Your task to perform on an android device: change notifications settings Image 0: 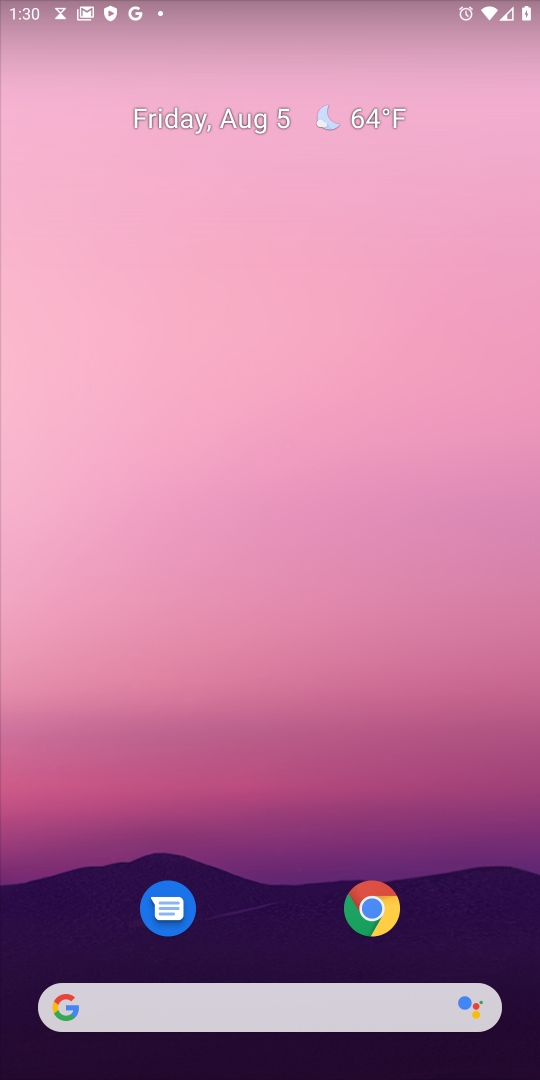
Step 0: press home button
Your task to perform on an android device: change notifications settings Image 1: 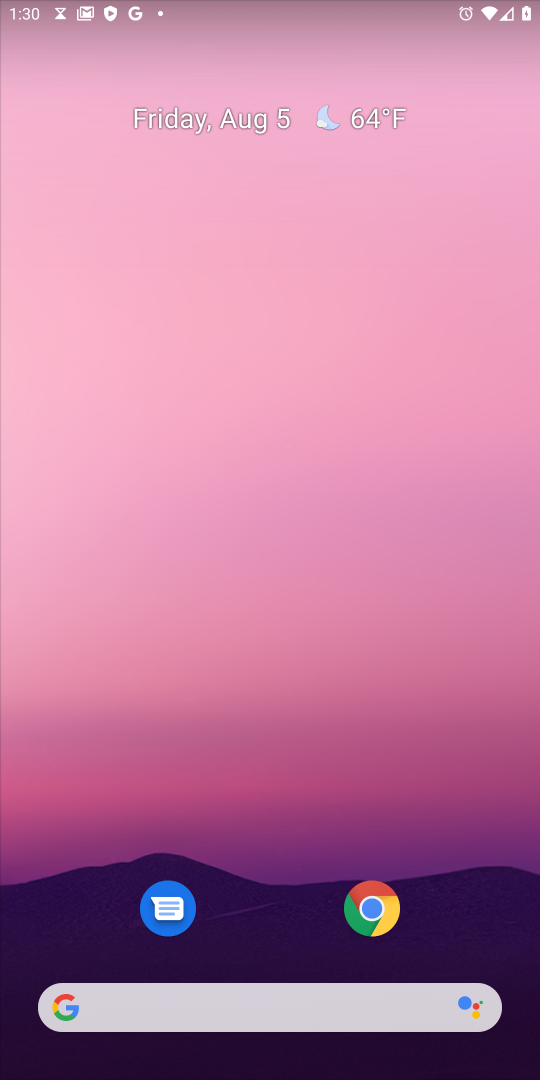
Step 1: drag from (326, 1025) to (142, 6)
Your task to perform on an android device: change notifications settings Image 2: 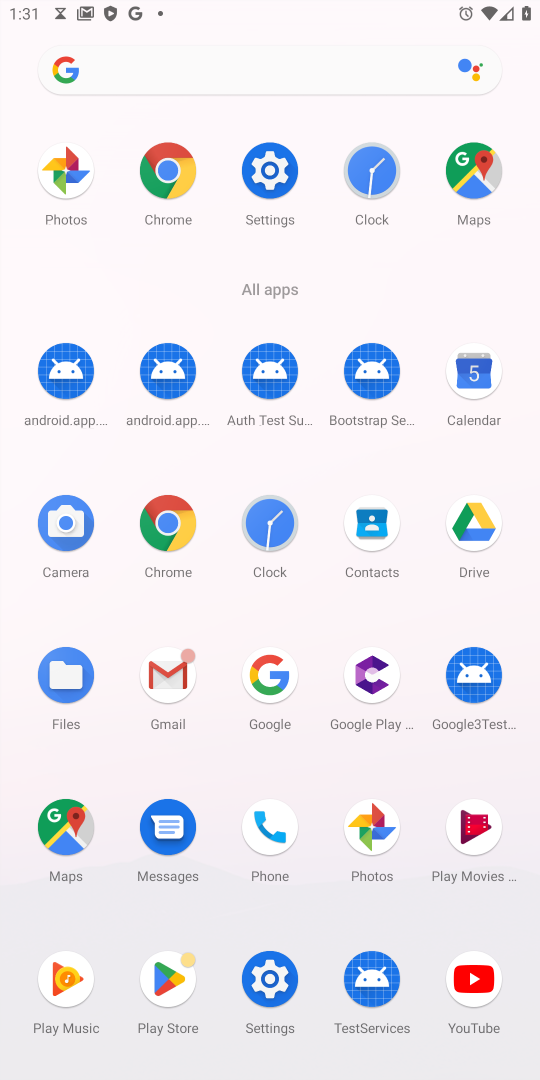
Step 2: click (263, 1006)
Your task to perform on an android device: change notifications settings Image 3: 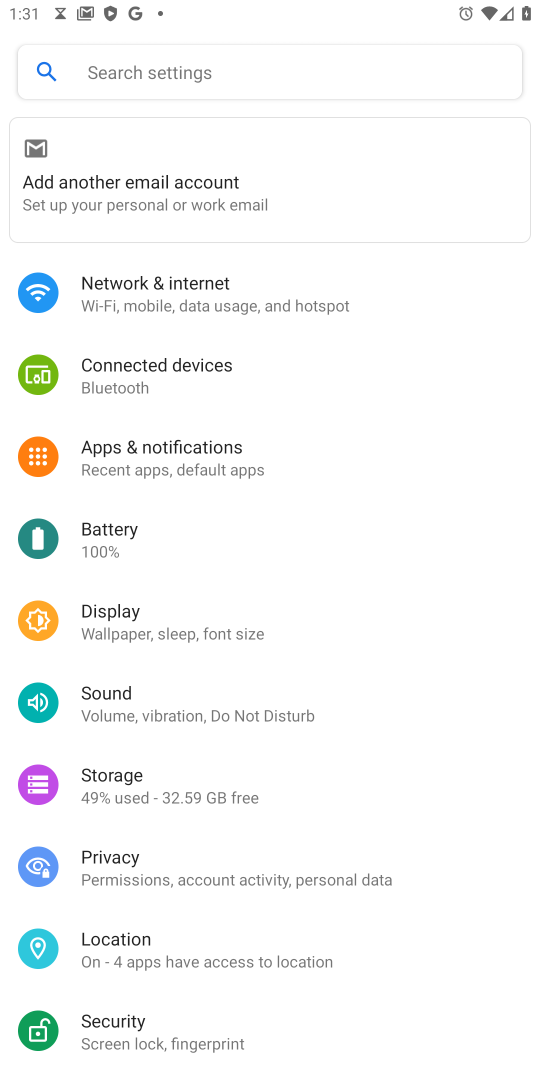
Step 3: click (195, 445)
Your task to perform on an android device: change notifications settings Image 4: 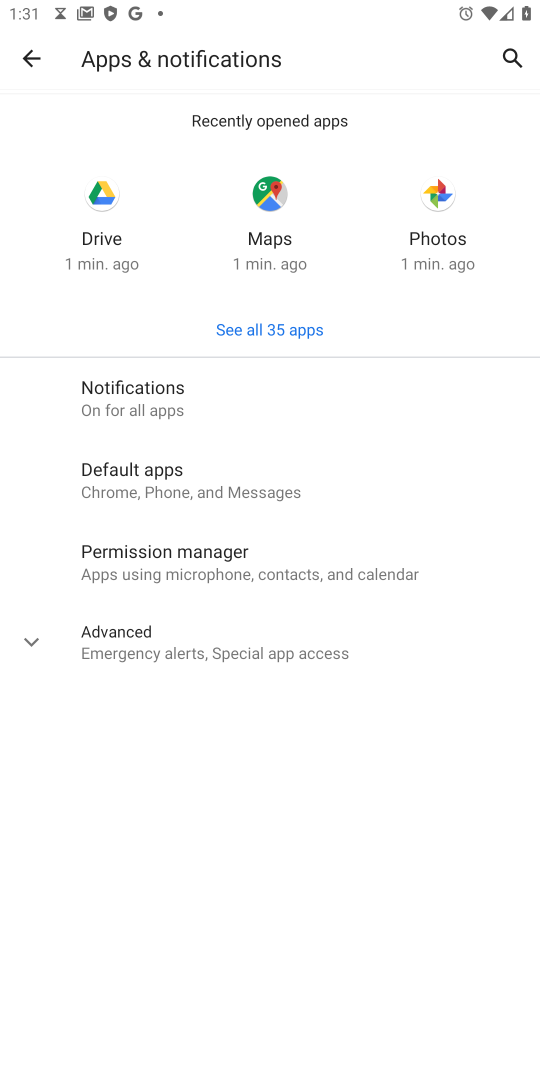
Step 4: click (115, 391)
Your task to perform on an android device: change notifications settings Image 5: 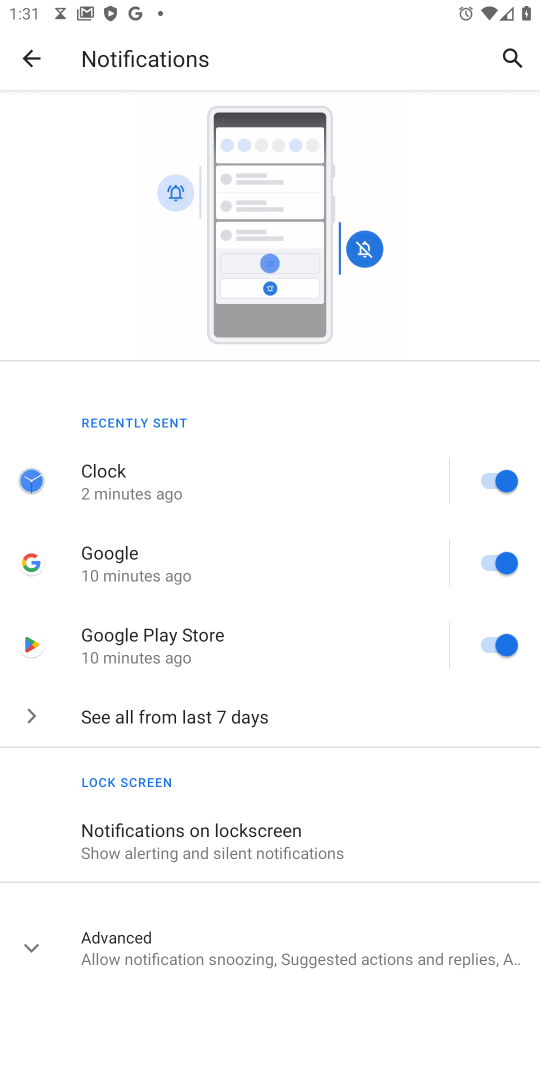
Step 5: click (275, 964)
Your task to perform on an android device: change notifications settings Image 6: 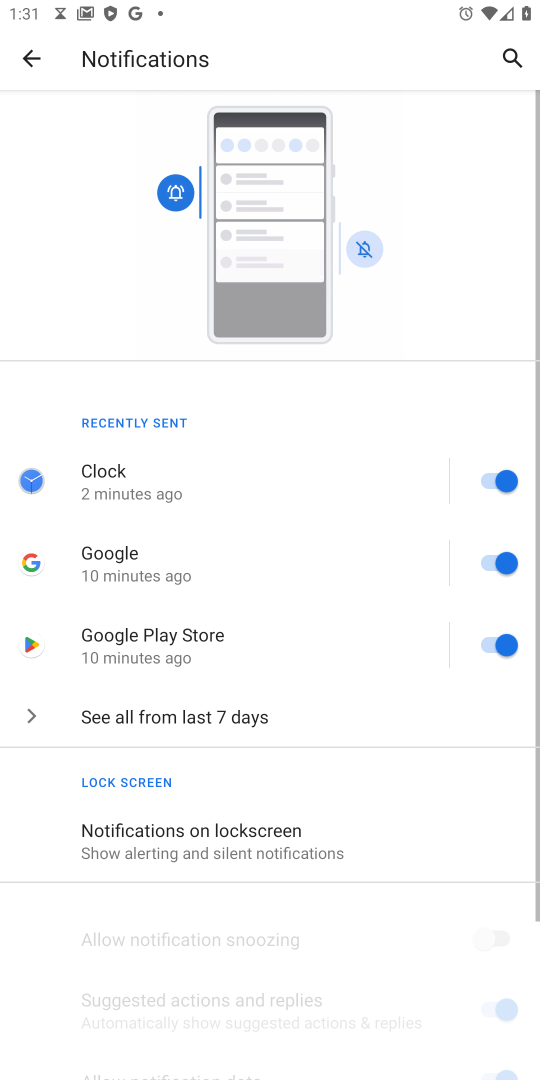
Step 6: drag from (322, 861) to (317, 670)
Your task to perform on an android device: change notifications settings Image 7: 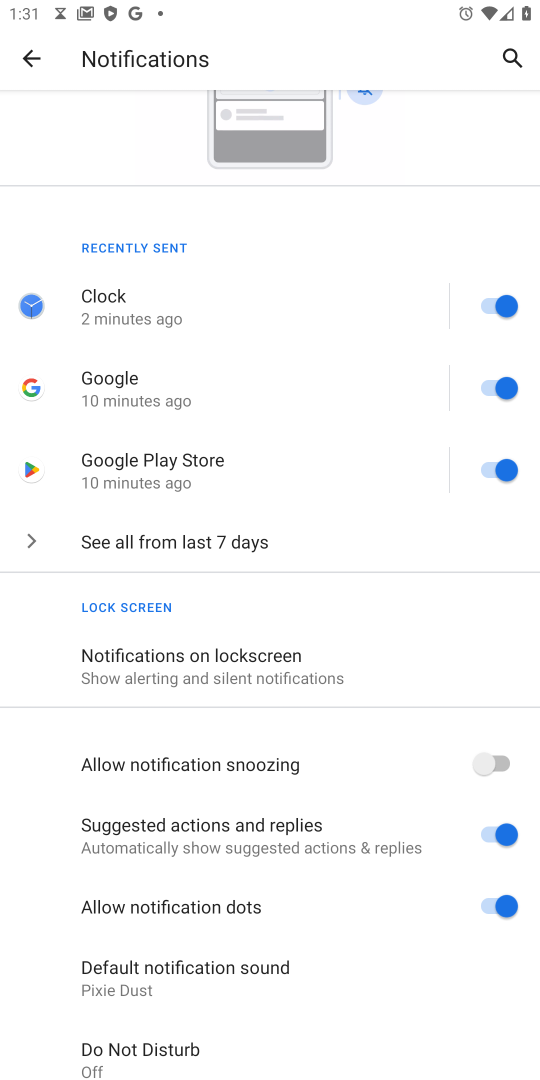
Step 7: click (153, 691)
Your task to perform on an android device: change notifications settings Image 8: 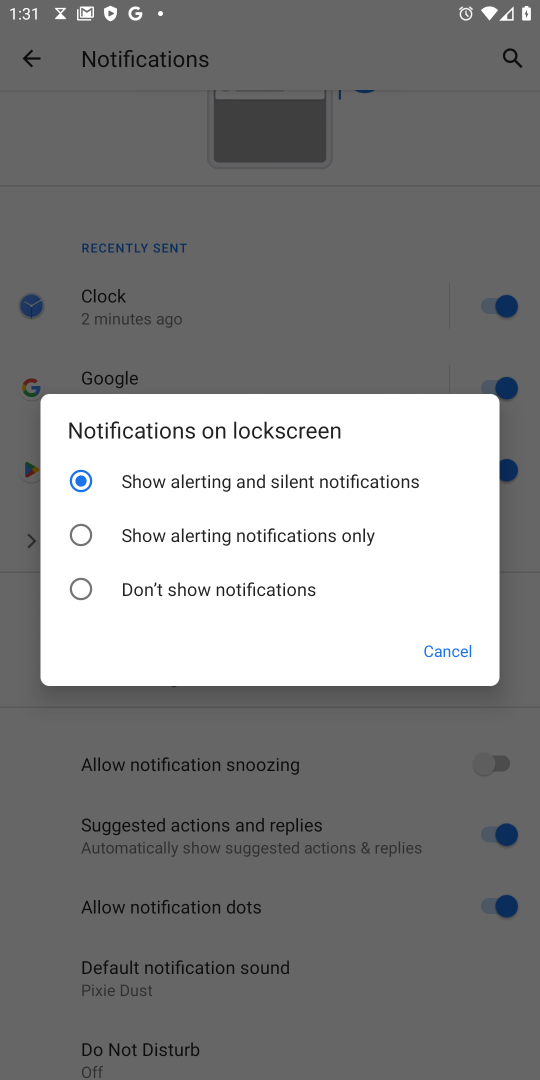
Step 8: click (126, 578)
Your task to perform on an android device: change notifications settings Image 9: 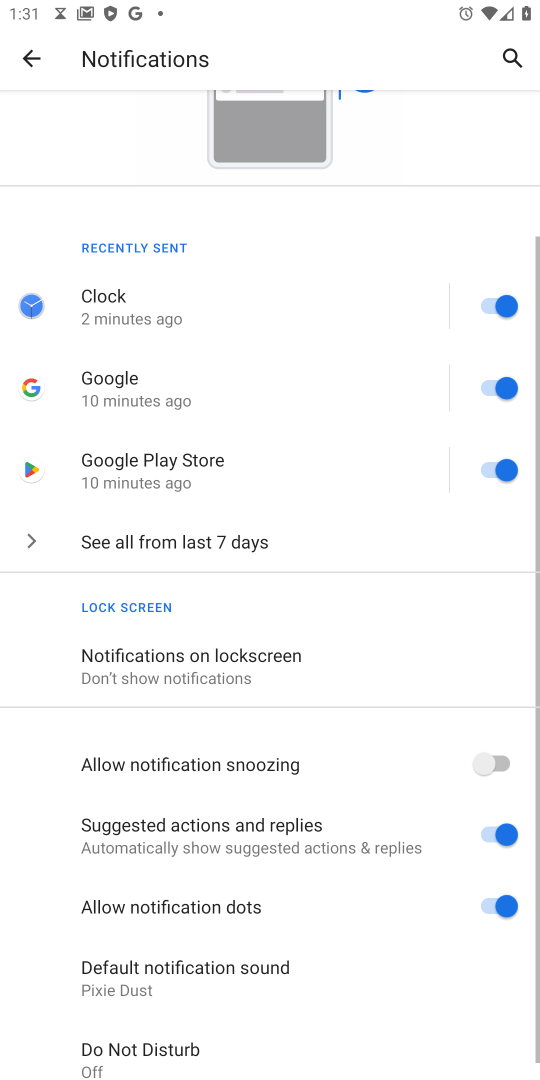
Step 9: click (489, 840)
Your task to perform on an android device: change notifications settings Image 10: 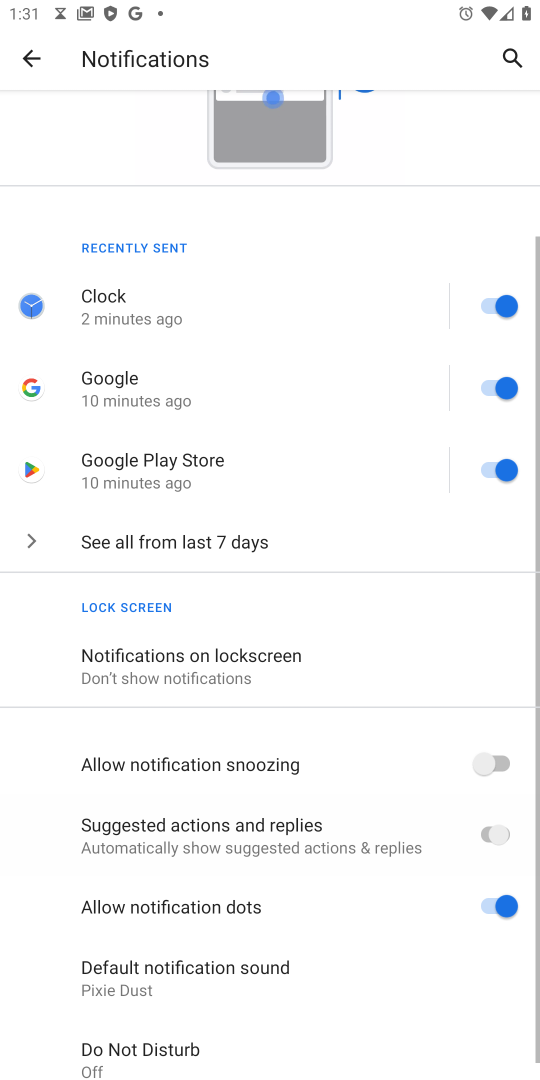
Step 10: click (491, 903)
Your task to perform on an android device: change notifications settings Image 11: 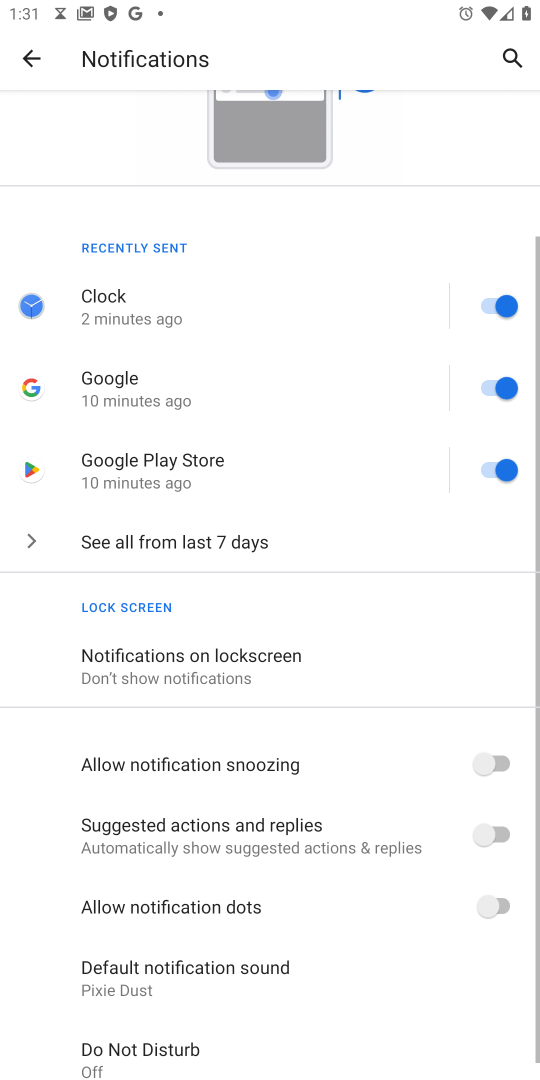
Step 11: click (497, 754)
Your task to perform on an android device: change notifications settings Image 12: 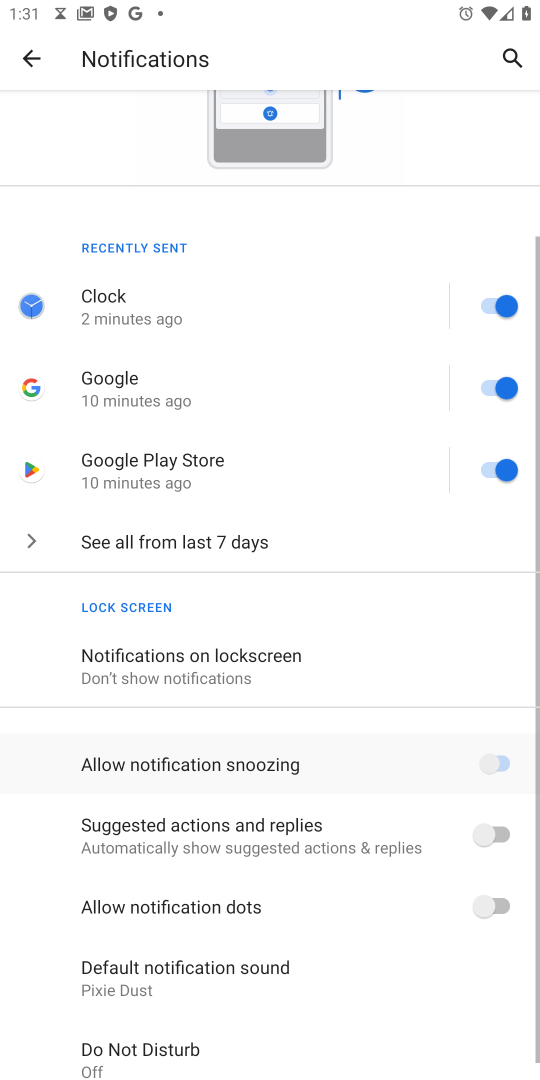
Step 12: task complete